Your task to perform on an android device: turn on bluetooth scan Image 0: 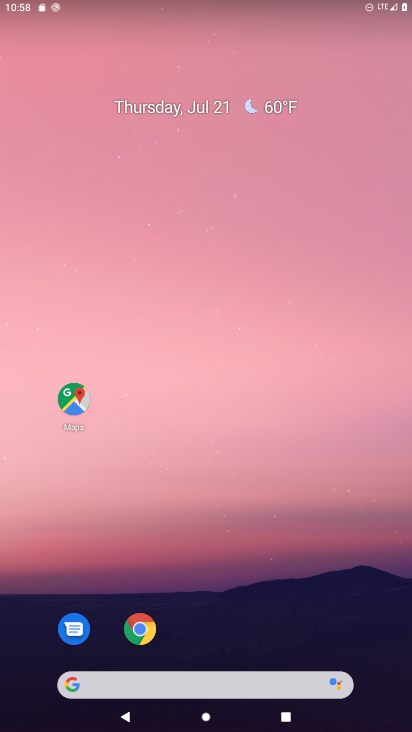
Step 0: press home button
Your task to perform on an android device: turn on bluetooth scan Image 1: 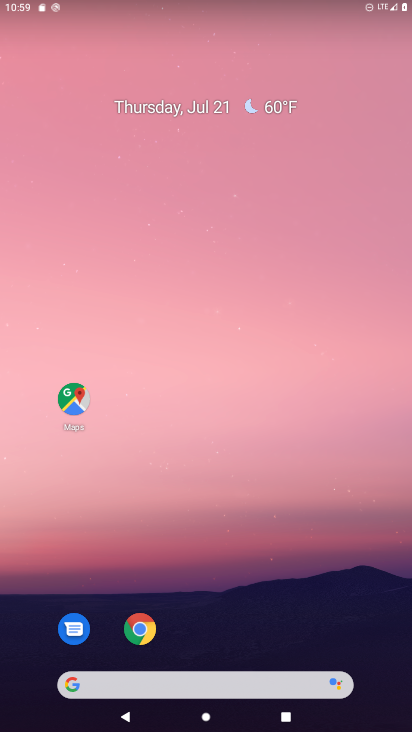
Step 1: drag from (323, 616) to (303, 112)
Your task to perform on an android device: turn on bluetooth scan Image 2: 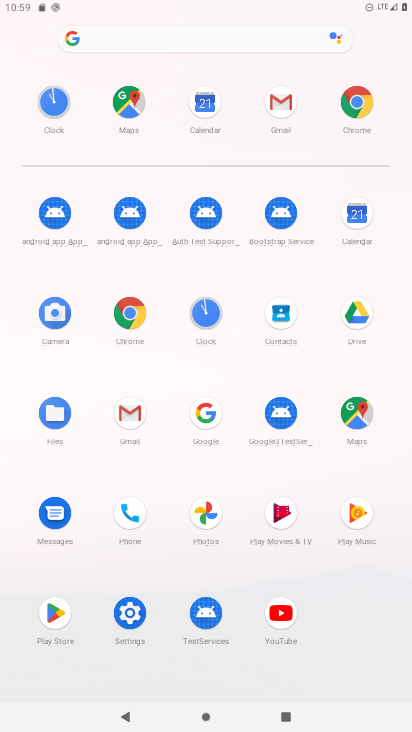
Step 2: click (132, 608)
Your task to perform on an android device: turn on bluetooth scan Image 3: 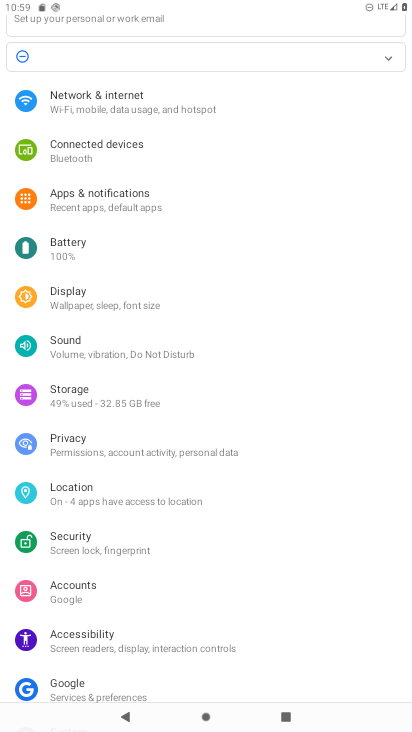
Step 3: click (63, 503)
Your task to perform on an android device: turn on bluetooth scan Image 4: 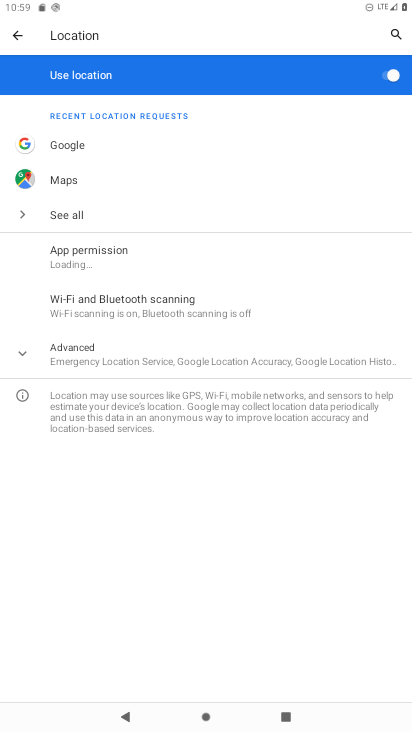
Step 4: click (108, 311)
Your task to perform on an android device: turn on bluetooth scan Image 5: 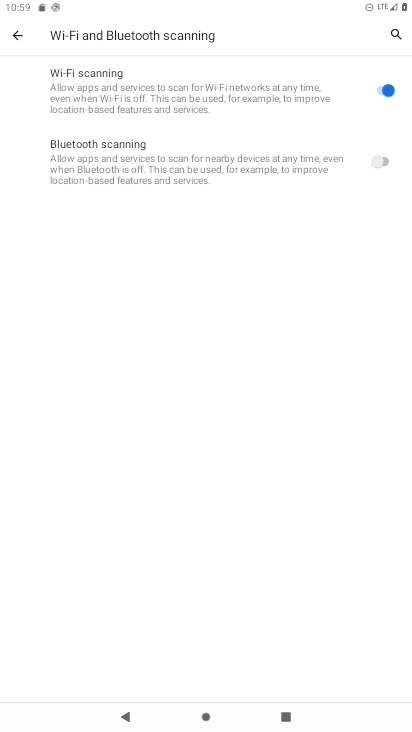
Step 5: click (385, 155)
Your task to perform on an android device: turn on bluetooth scan Image 6: 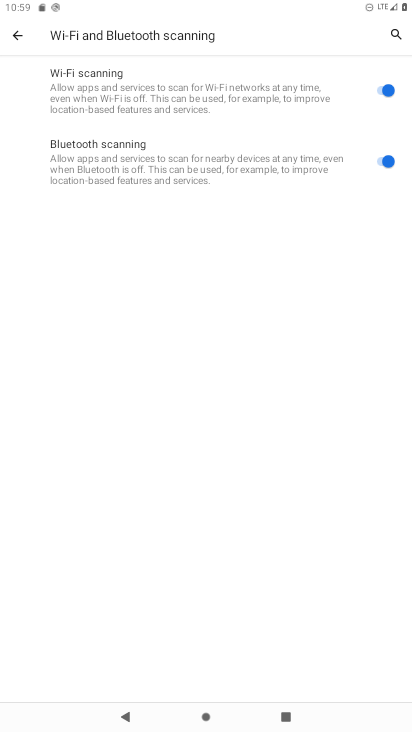
Step 6: task complete